Your task to perform on an android device: Show me popular games on the Play Store Image 0: 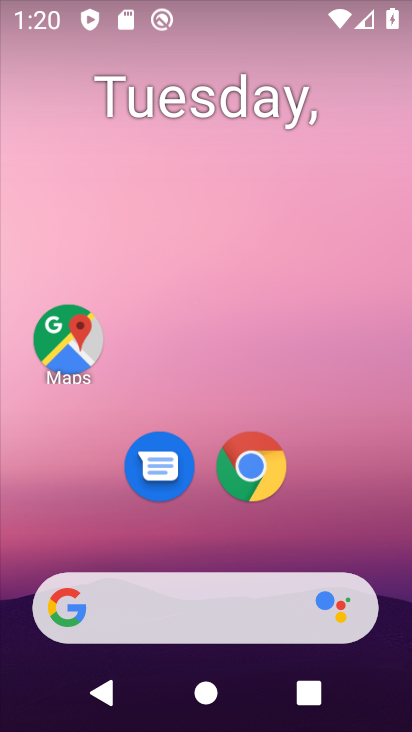
Step 0: drag from (361, 548) to (345, 386)
Your task to perform on an android device: Show me popular games on the Play Store Image 1: 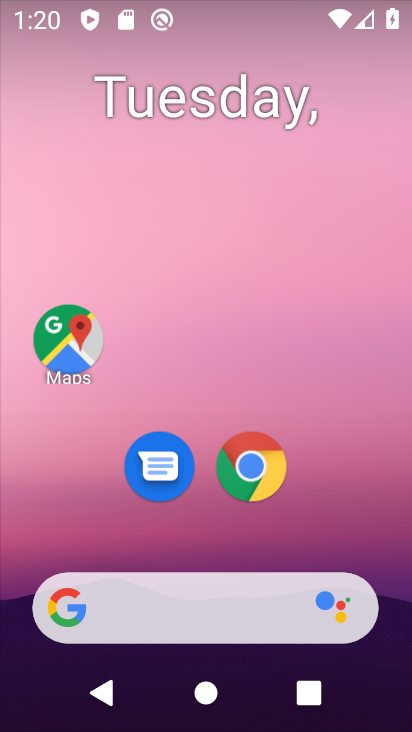
Step 1: drag from (362, 534) to (325, 148)
Your task to perform on an android device: Show me popular games on the Play Store Image 2: 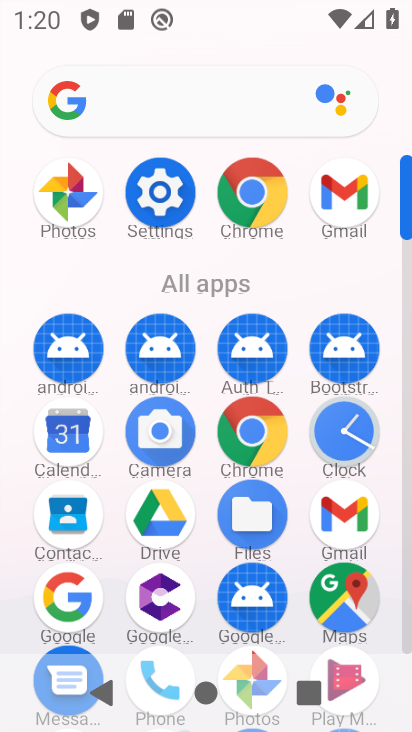
Step 2: click (403, 643)
Your task to perform on an android device: Show me popular games on the Play Store Image 3: 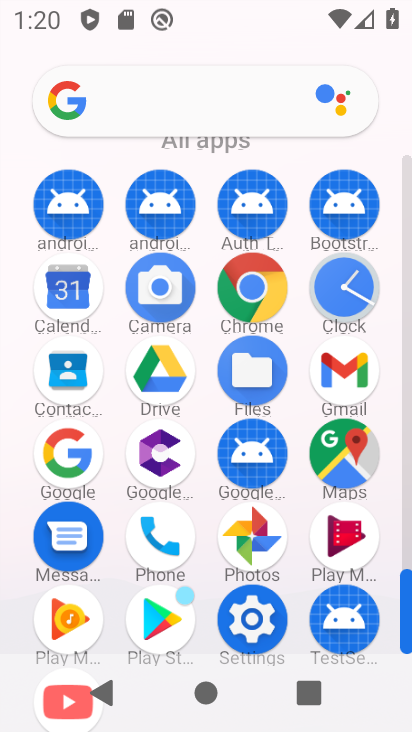
Step 3: click (408, 632)
Your task to perform on an android device: Show me popular games on the Play Store Image 4: 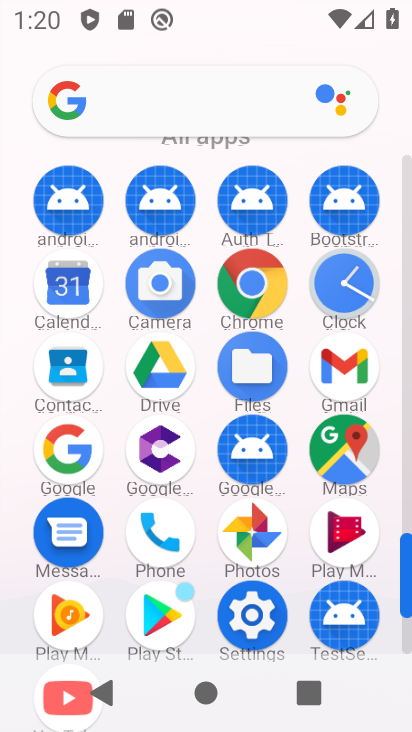
Step 4: click (407, 641)
Your task to perform on an android device: Show me popular games on the Play Store Image 5: 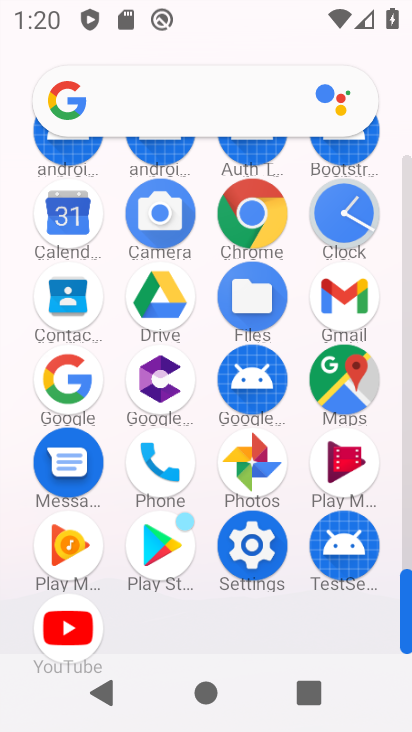
Step 5: click (62, 630)
Your task to perform on an android device: Show me popular games on the Play Store Image 6: 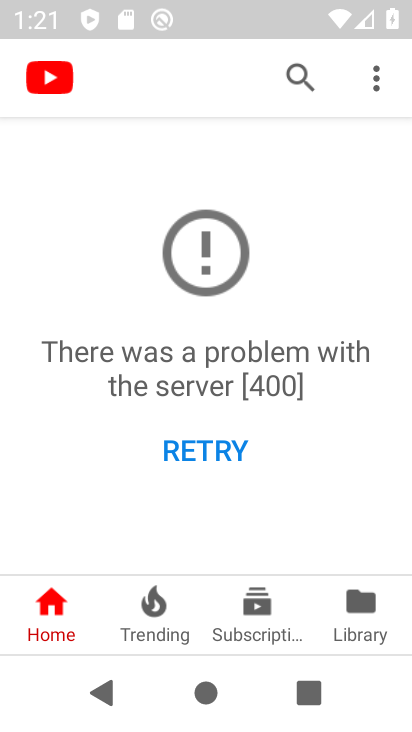
Step 6: task complete